Your task to perform on an android device: Open my contact list Image 0: 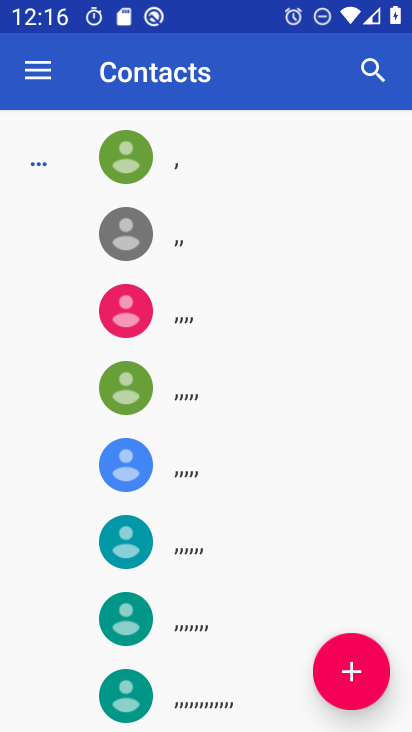
Step 0: press back button
Your task to perform on an android device: Open my contact list Image 1: 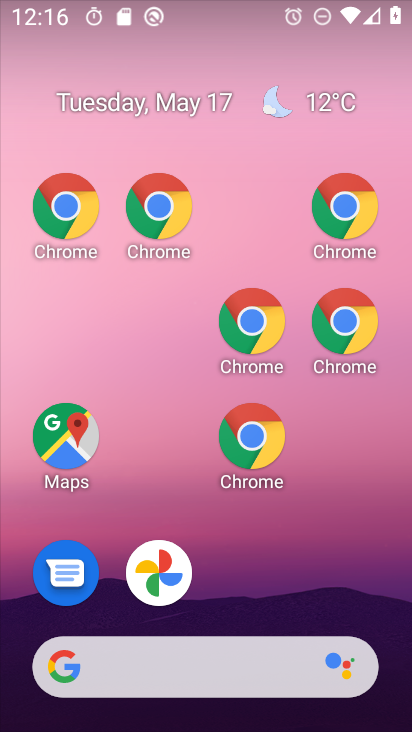
Step 1: drag from (276, 692) to (218, 202)
Your task to perform on an android device: Open my contact list Image 2: 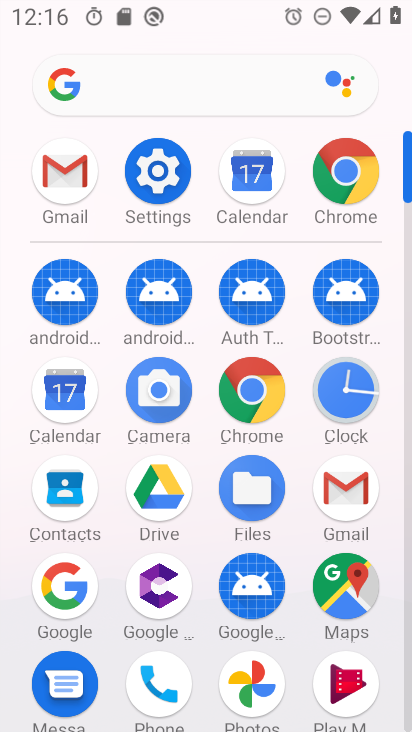
Step 2: click (75, 480)
Your task to perform on an android device: Open my contact list Image 3: 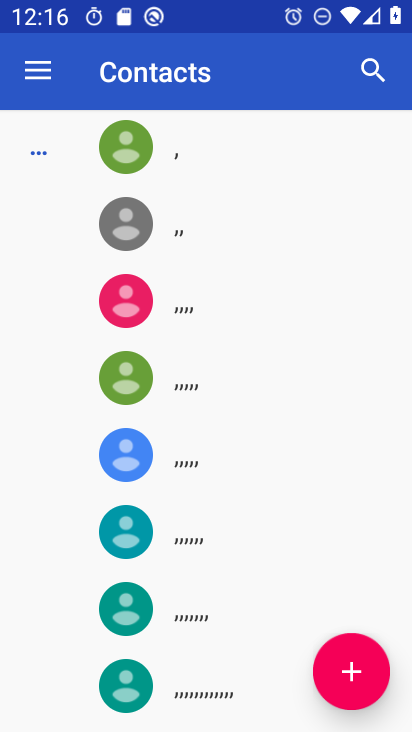
Step 3: task complete